Your task to perform on an android device: Open Chrome and go to settings Image 0: 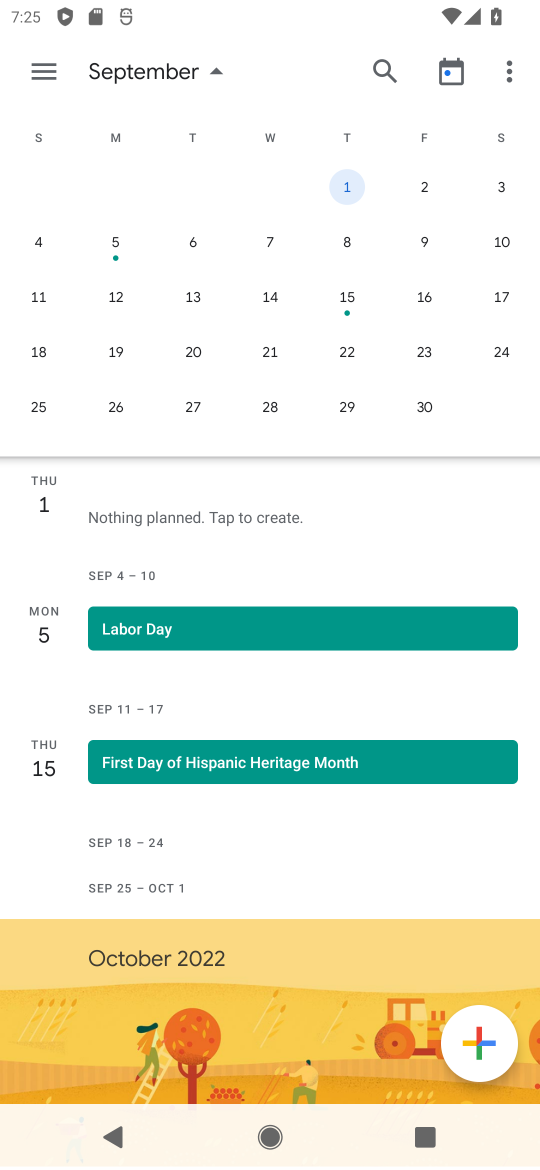
Step 0: press home button
Your task to perform on an android device: Open Chrome and go to settings Image 1: 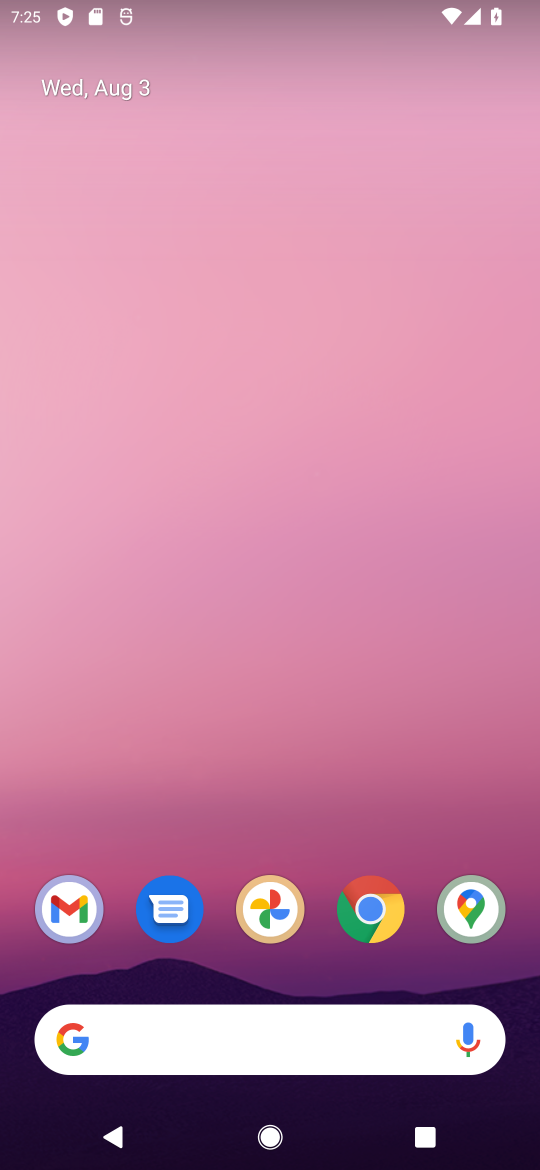
Step 1: drag from (314, 792) to (298, 116)
Your task to perform on an android device: Open Chrome and go to settings Image 2: 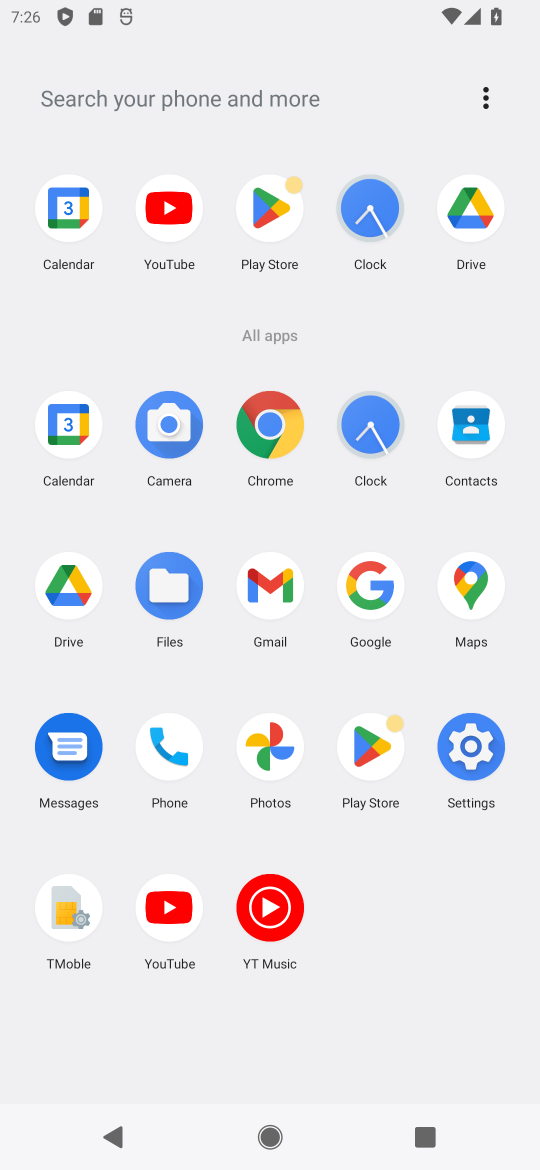
Step 2: click (269, 433)
Your task to perform on an android device: Open Chrome and go to settings Image 3: 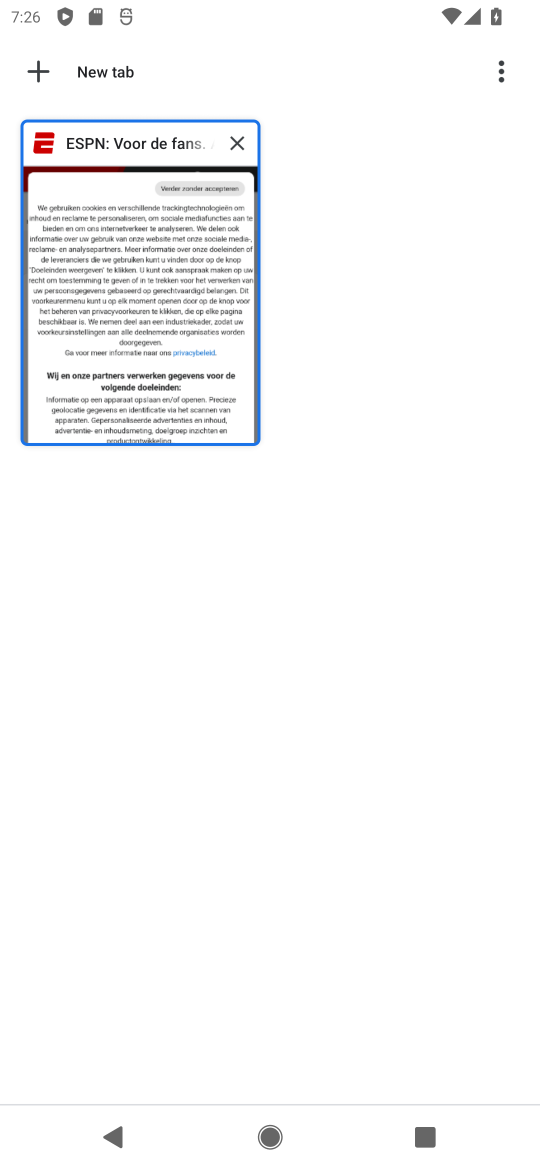
Step 3: click (503, 79)
Your task to perform on an android device: Open Chrome and go to settings Image 4: 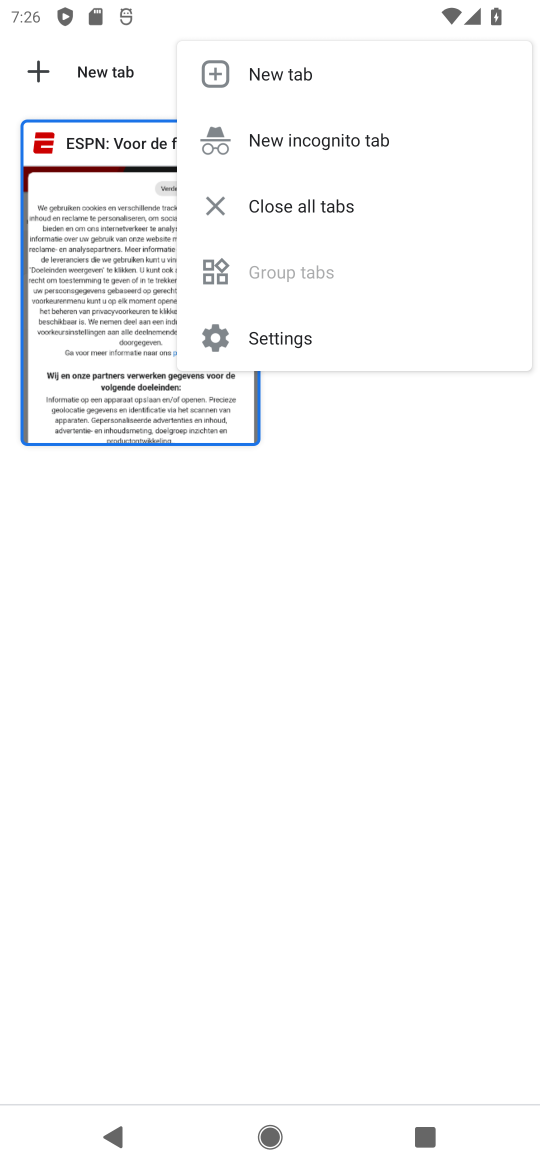
Step 4: click (336, 334)
Your task to perform on an android device: Open Chrome and go to settings Image 5: 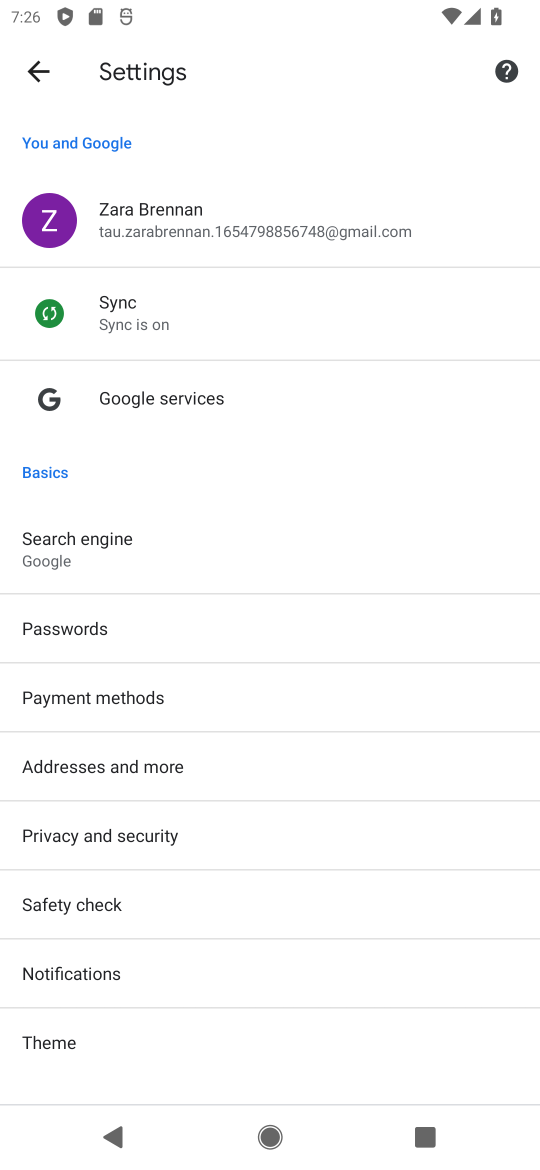
Step 5: drag from (385, 681) to (405, 435)
Your task to perform on an android device: Open Chrome and go to settings Image 6: 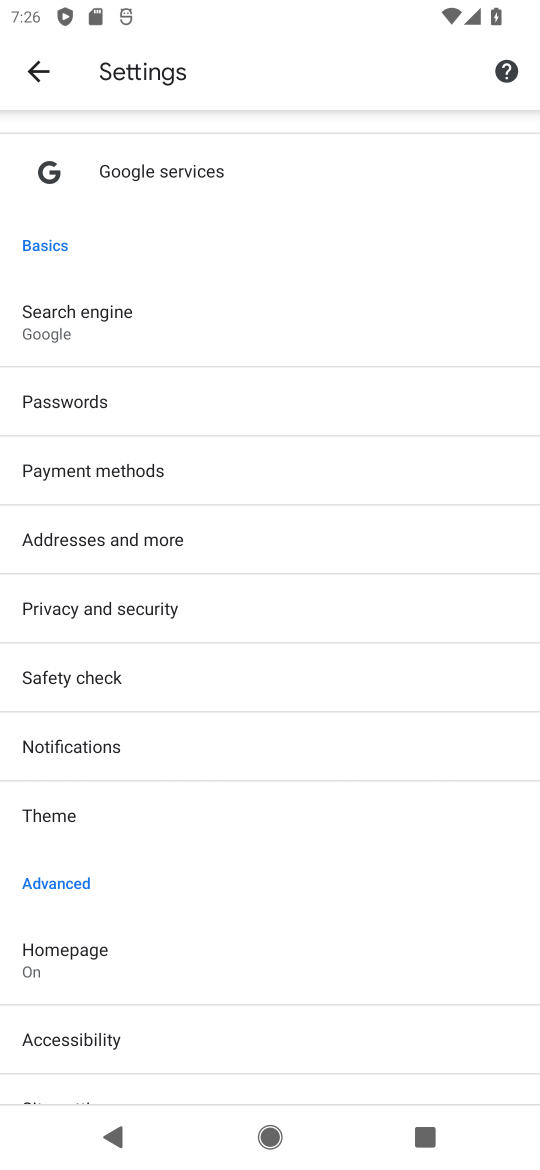
Step 6: drag from (372, 891) to (381, 631)
Your task to perform on an android device: Open Chrome and go to settings Image 7: 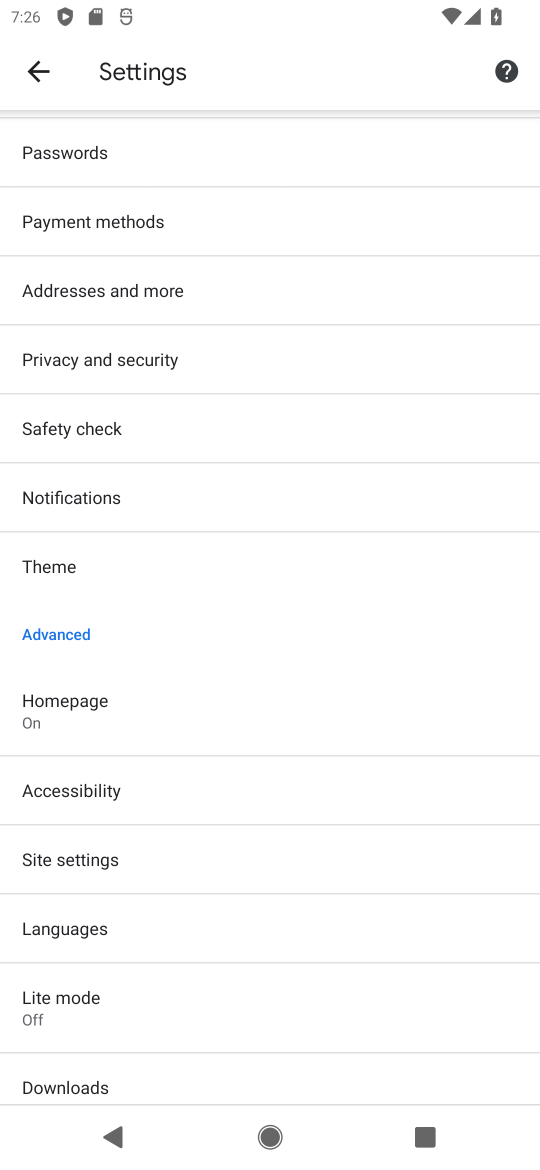
Step 7: drag from (340, 859) to (349, 713)
Your task to perform on an android device: Open Chrome and go to settings Image 8: 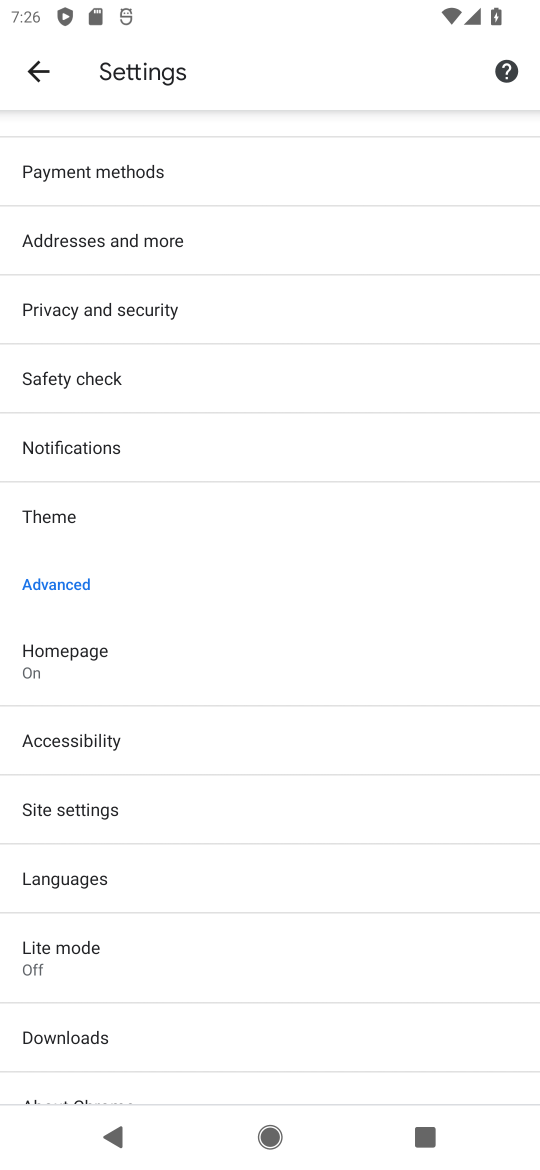
Step 8: press home button
Your task to perform on an android device: Open Chrome and go to settings Image 9: 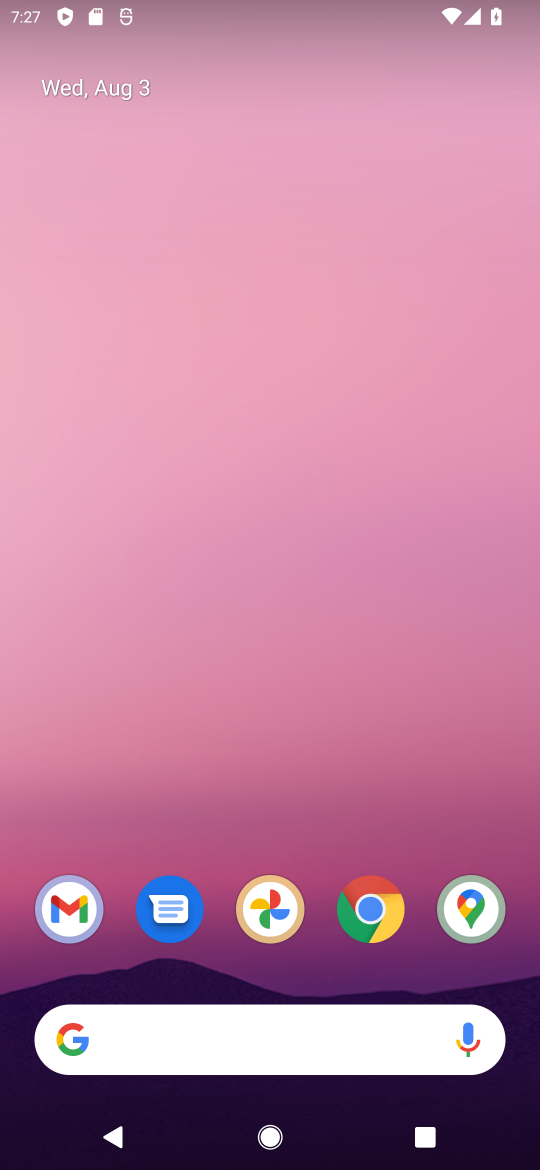
Step 9: drag from (317, 848) to (340, 225)
Your task to perform on an android device: Open Chrome and go to settings Image 10: 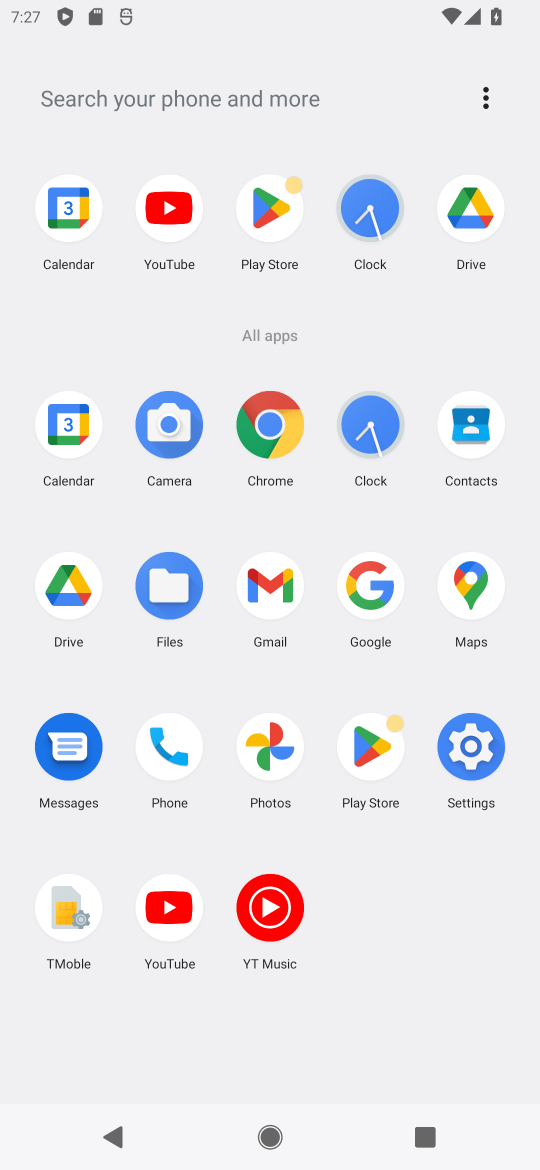
Step 10: click (279, 436)
Your task to perform on an android device: Open Chrome and go to settings Image 11: 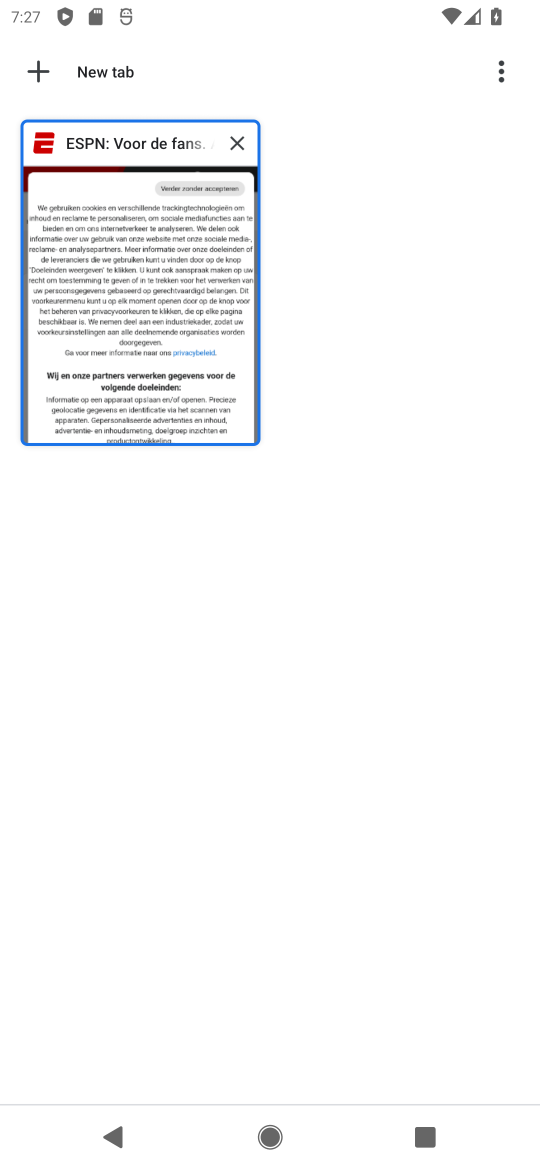
Step 11: click (496, 80)
Your task to perform on an android device: Open Chrome and go to settings Image 12: 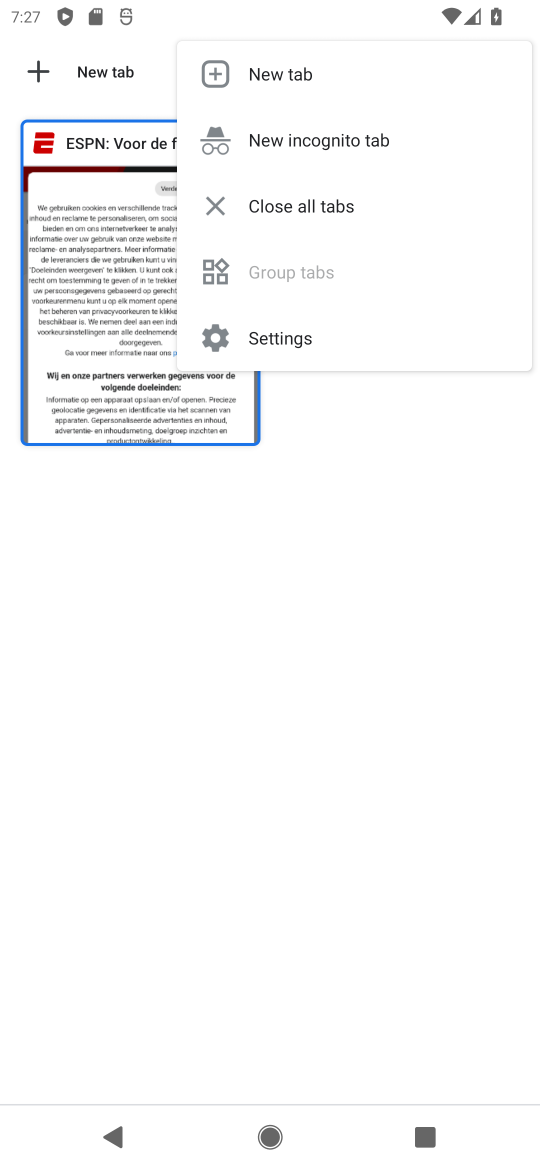
Step 12: click (317, 340)
Your task to perform on an android device: Open Chrome and go to settings Image 13: 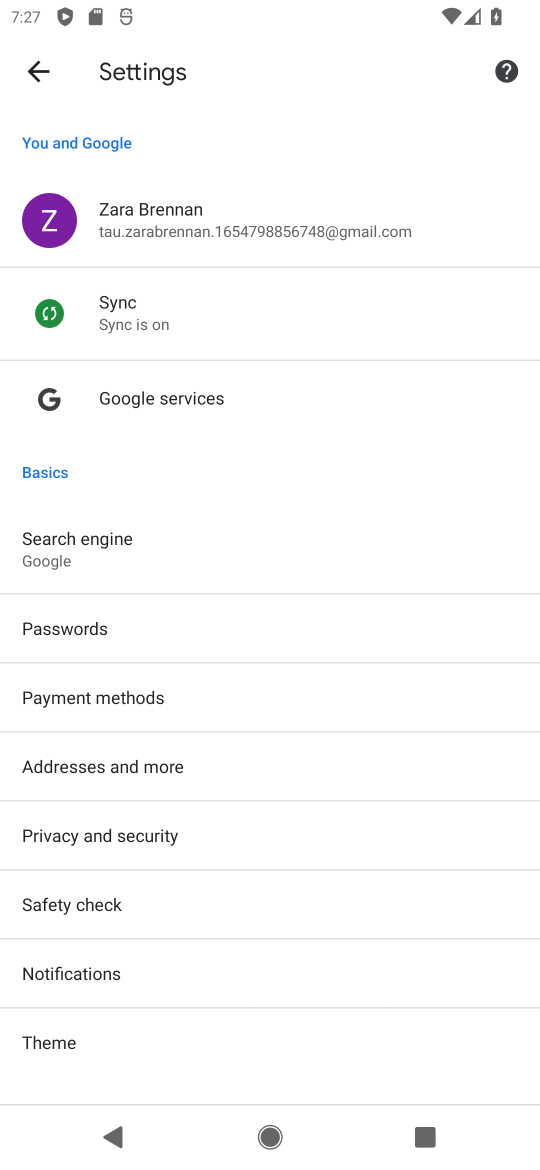
Step 13: task complete